Your task to perform on an android device: uninstall "Fetch Rewards" Image 0: 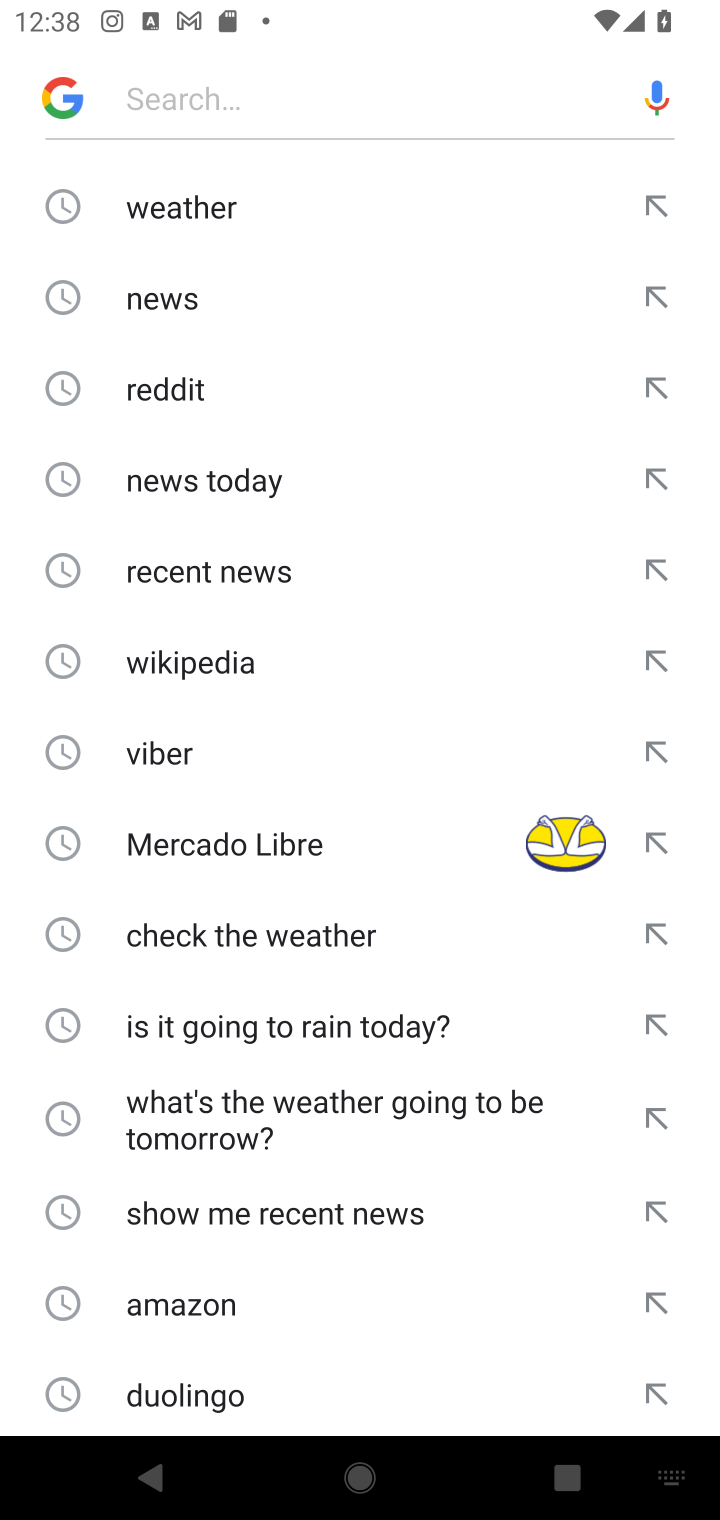
Step 0: type "Fetch Rewards"
Your task to perform on an android device: uninstall "Fetch Rewards" Image 1: 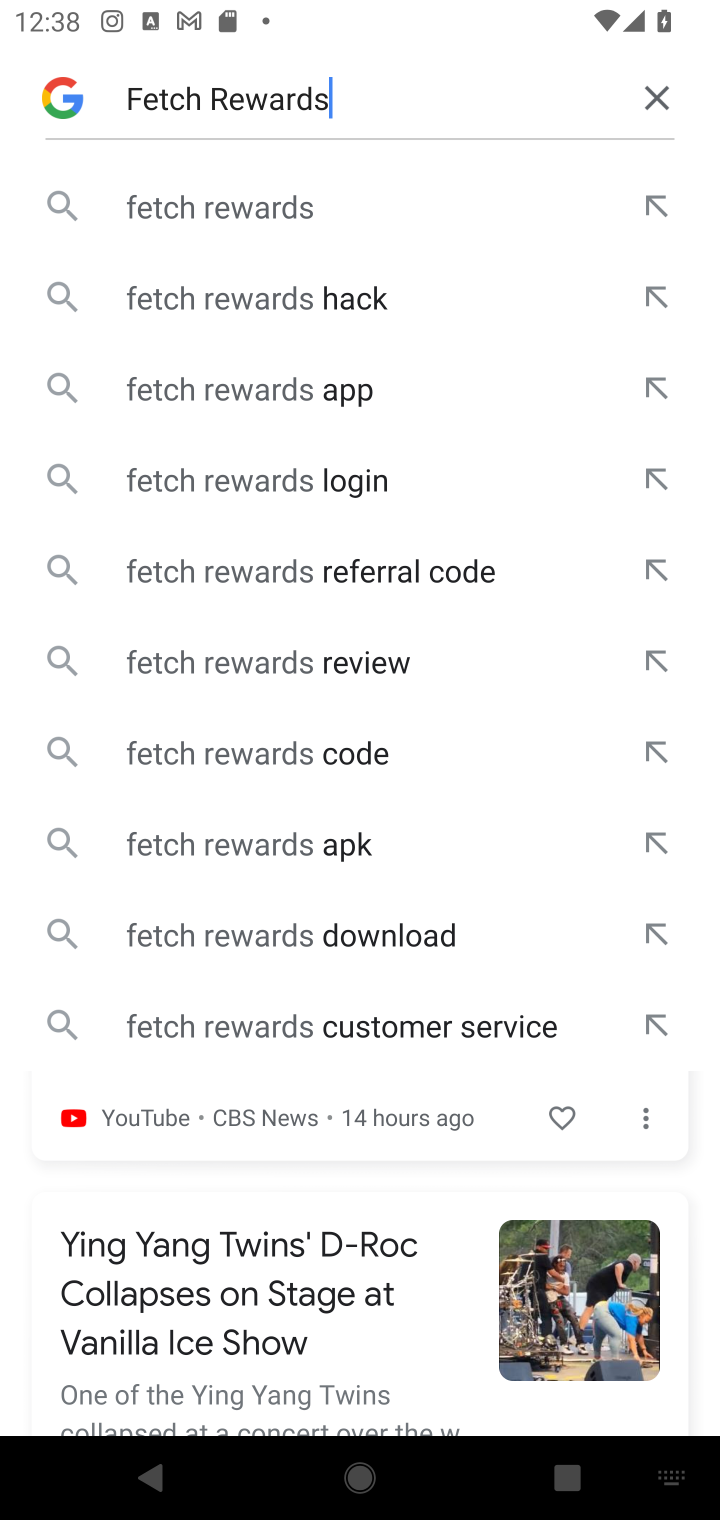
Step 1: click (236, 208)
Your task to perform on an android device: uninstall "Fetch Rewards" Image 2: 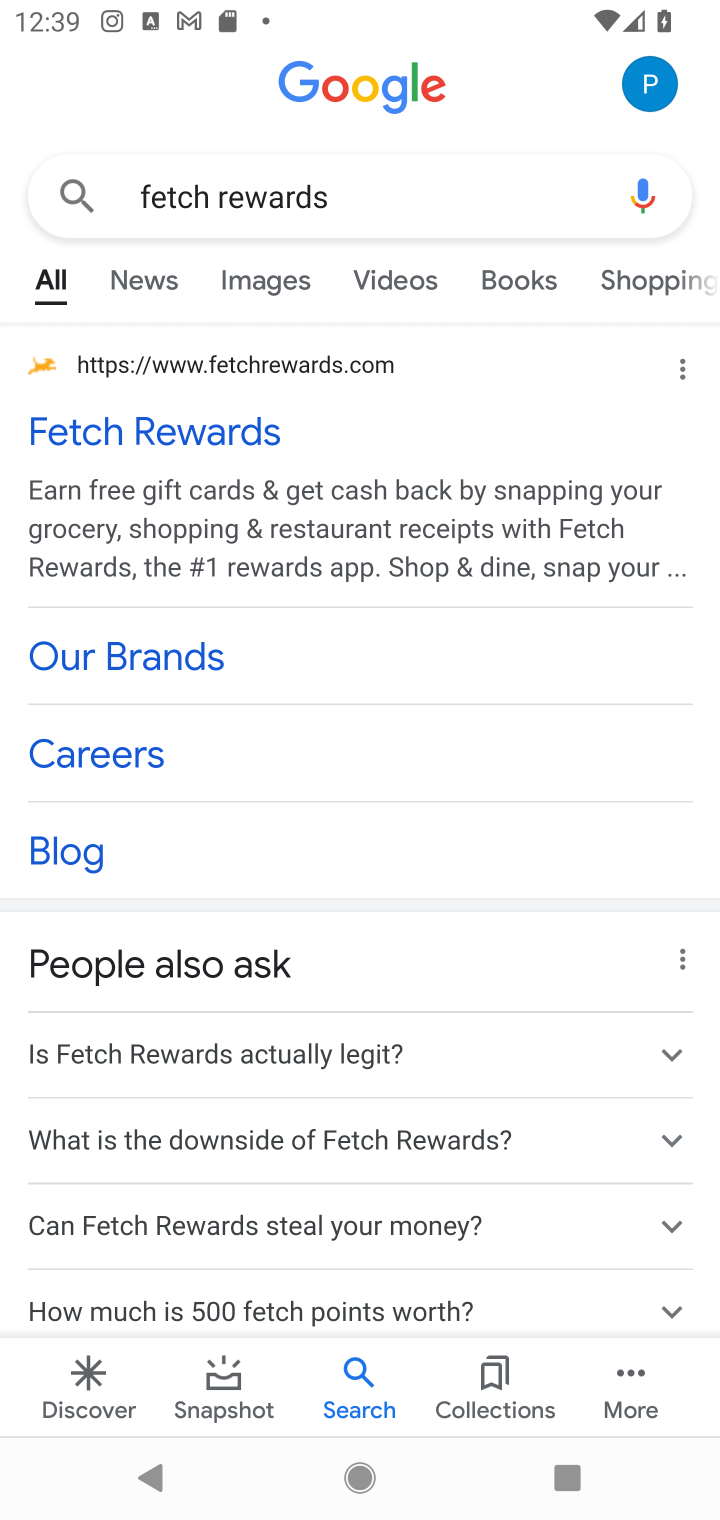
Step 2: press home button
Your task to perform on an android device: uninstall "Fetch Rewards" Image 3: 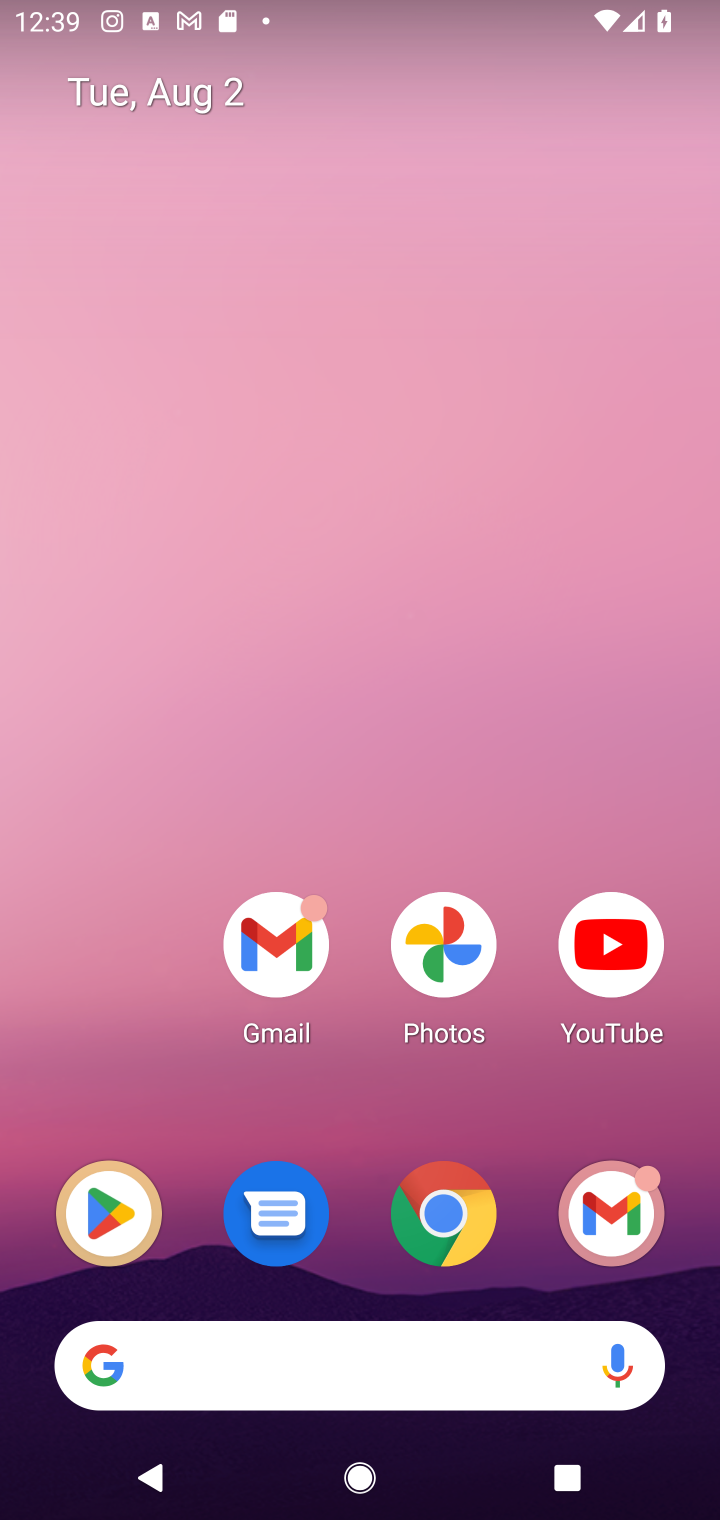
Step 3: click (128, 1223)
Your task to perform on an android device: uninstall "Fetch Rewards" Image 4: 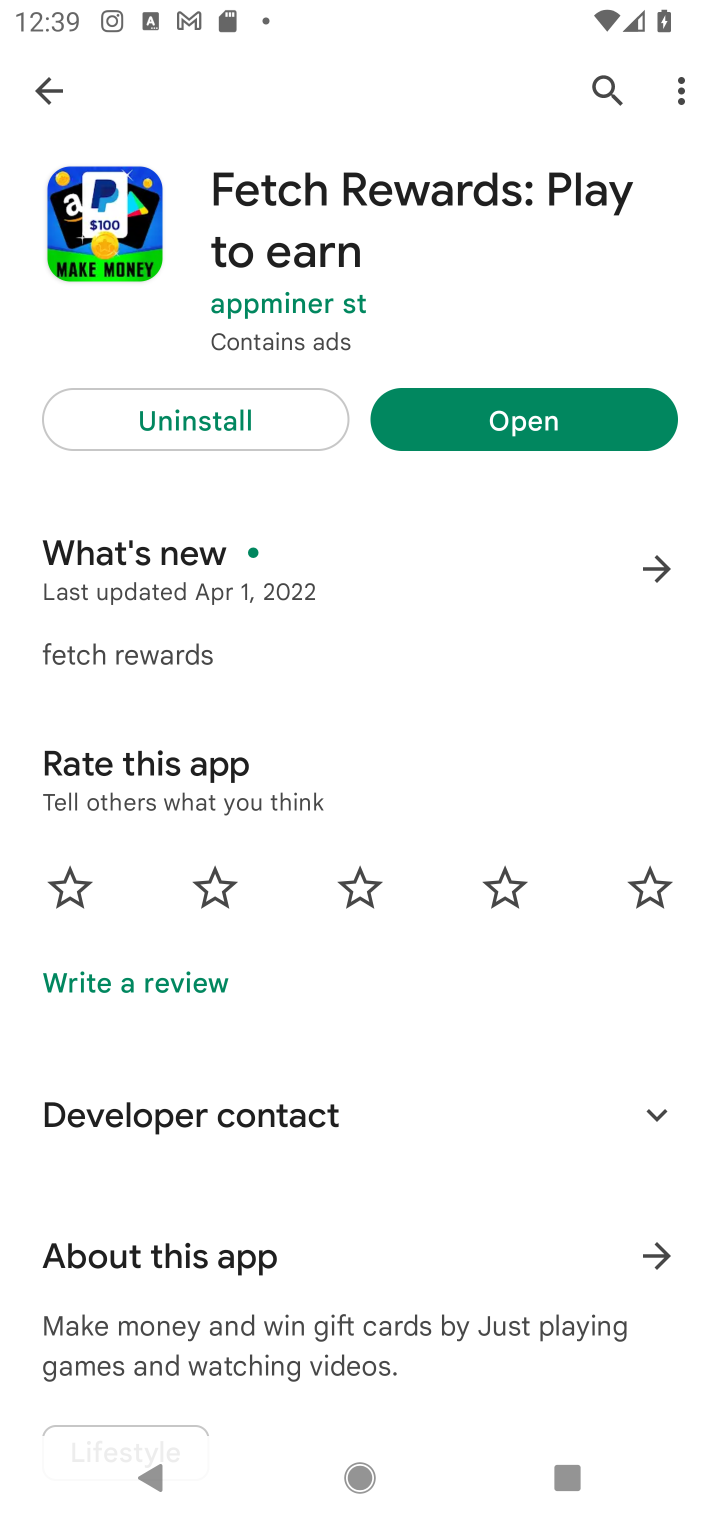
Step 4: click (49, 104)
Your task to perform on an android device: uninstall "Fetch Rewards" Image 5: 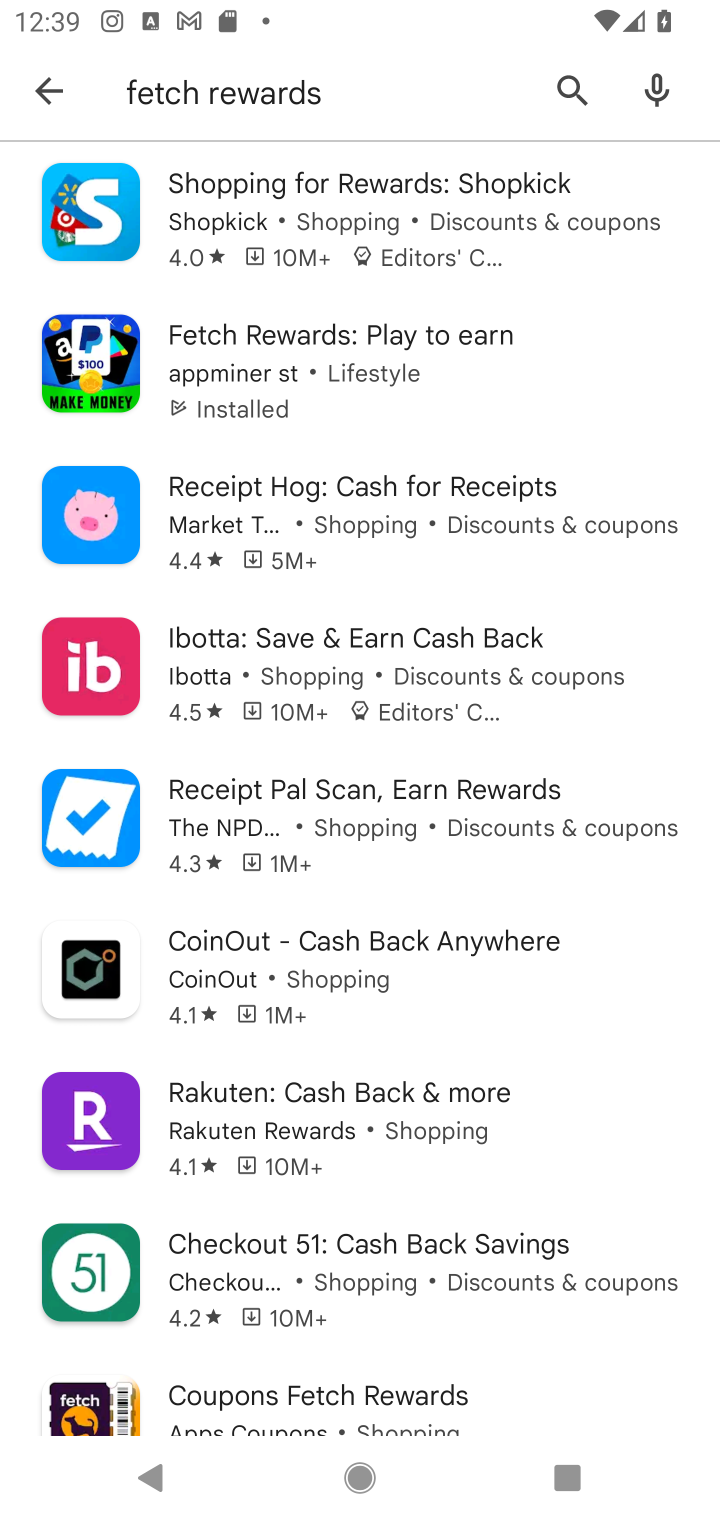
Step 5: click (61, 88)
Your task to perform on an android device: uninstall "Fetch Rewards" Image 6: 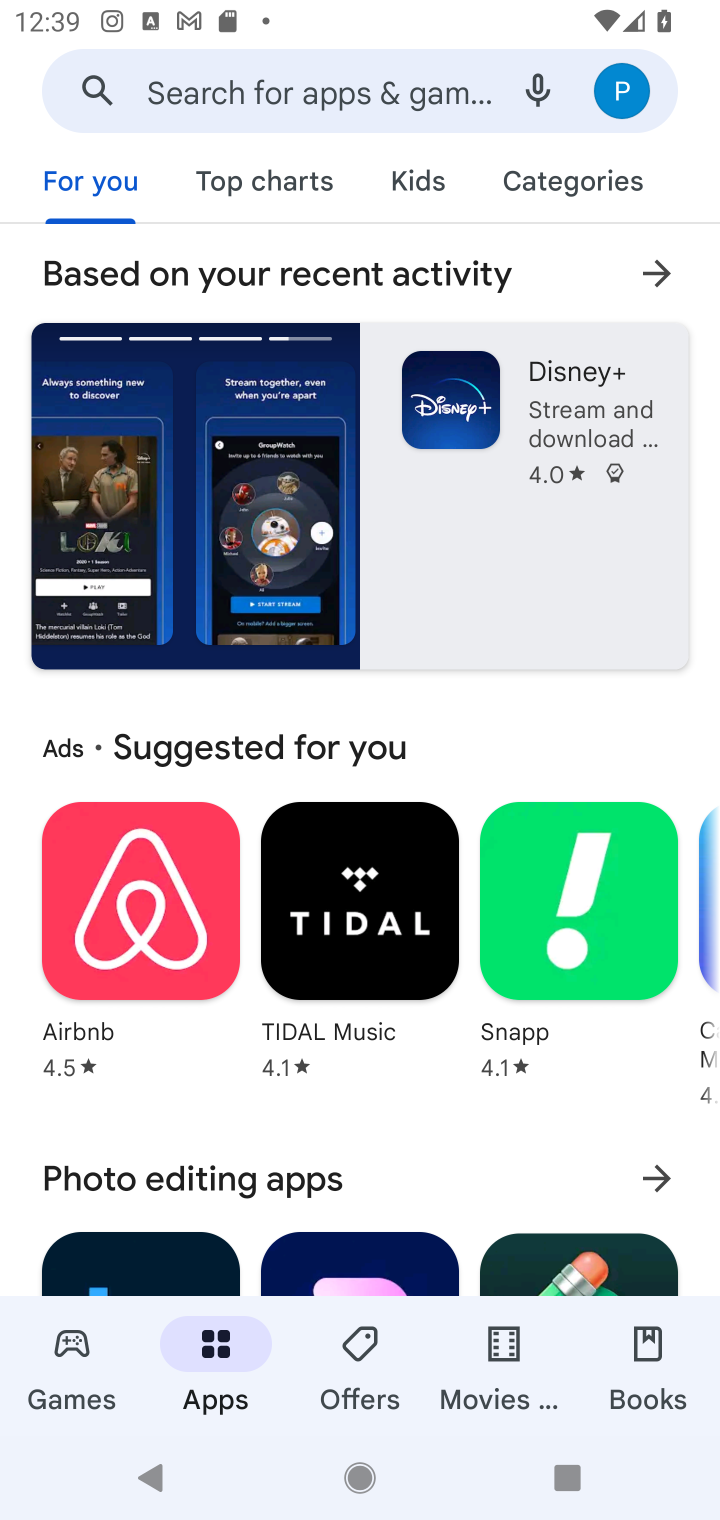
Step 6: click (288, 77)
Your task to perform on an android device: uninstall "Fetch Rewards" Image 7: 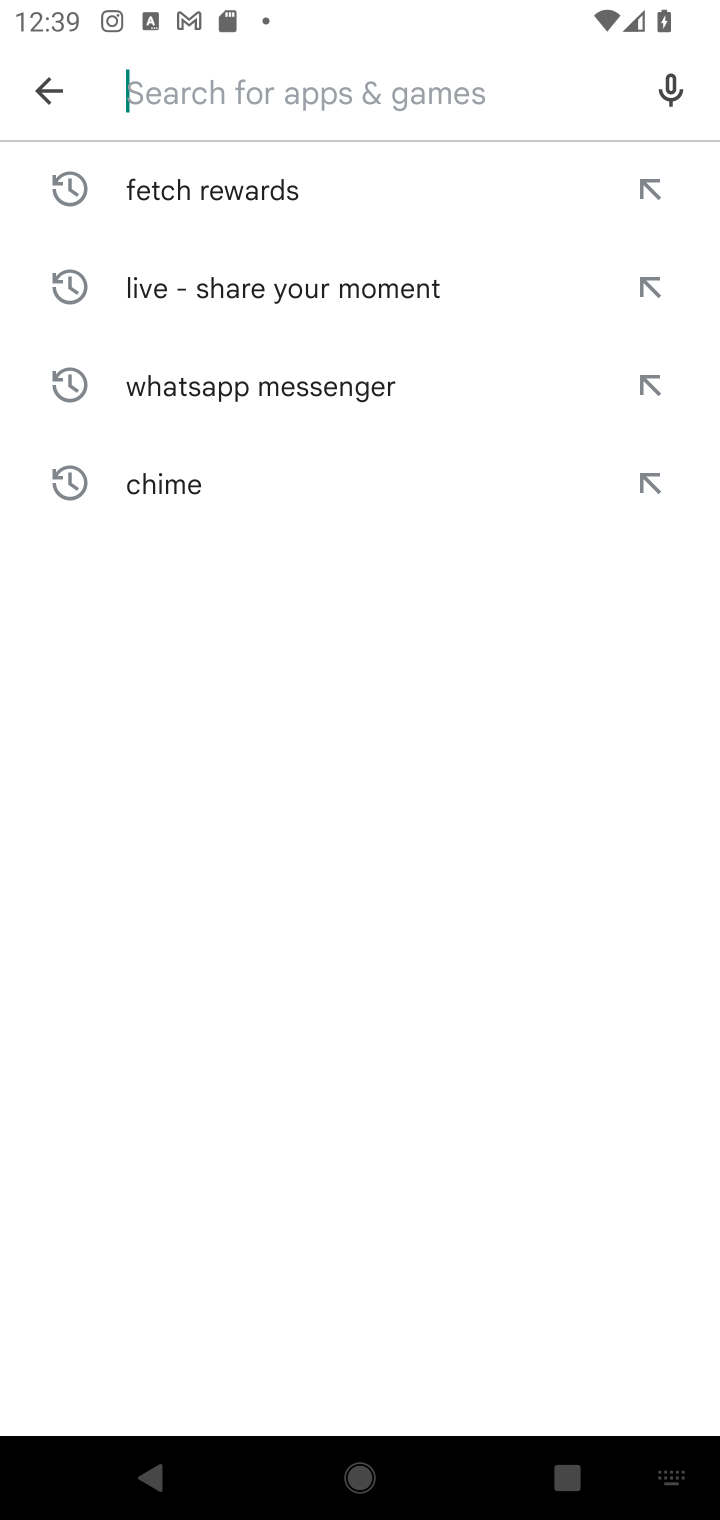
Step 7: click (286, 183)
Your task to perform on an android device: uninstall "Fetch Rewards" Image 8: 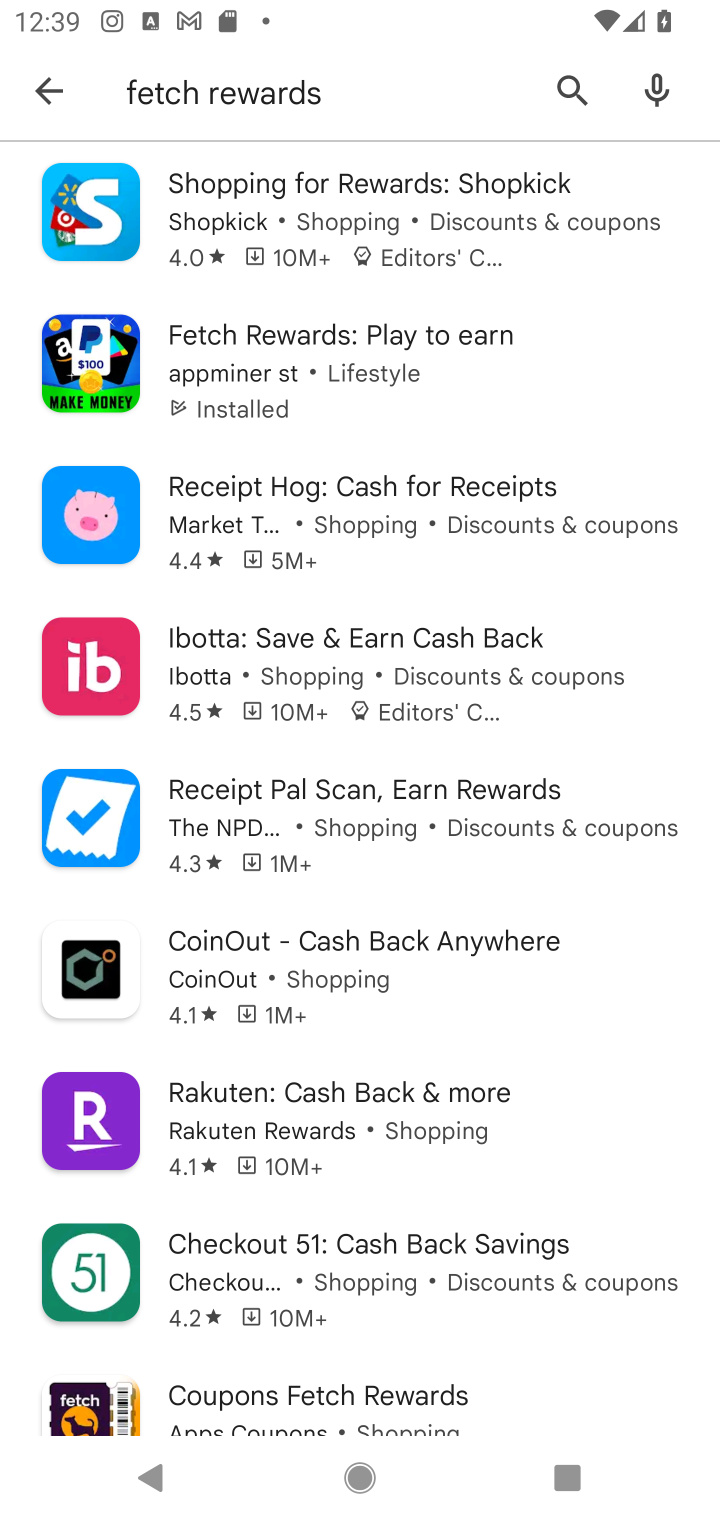
Step 8: click (272, 400)
Your task to perform on an android device: uninstall "Fetch Rewards" Image 9: 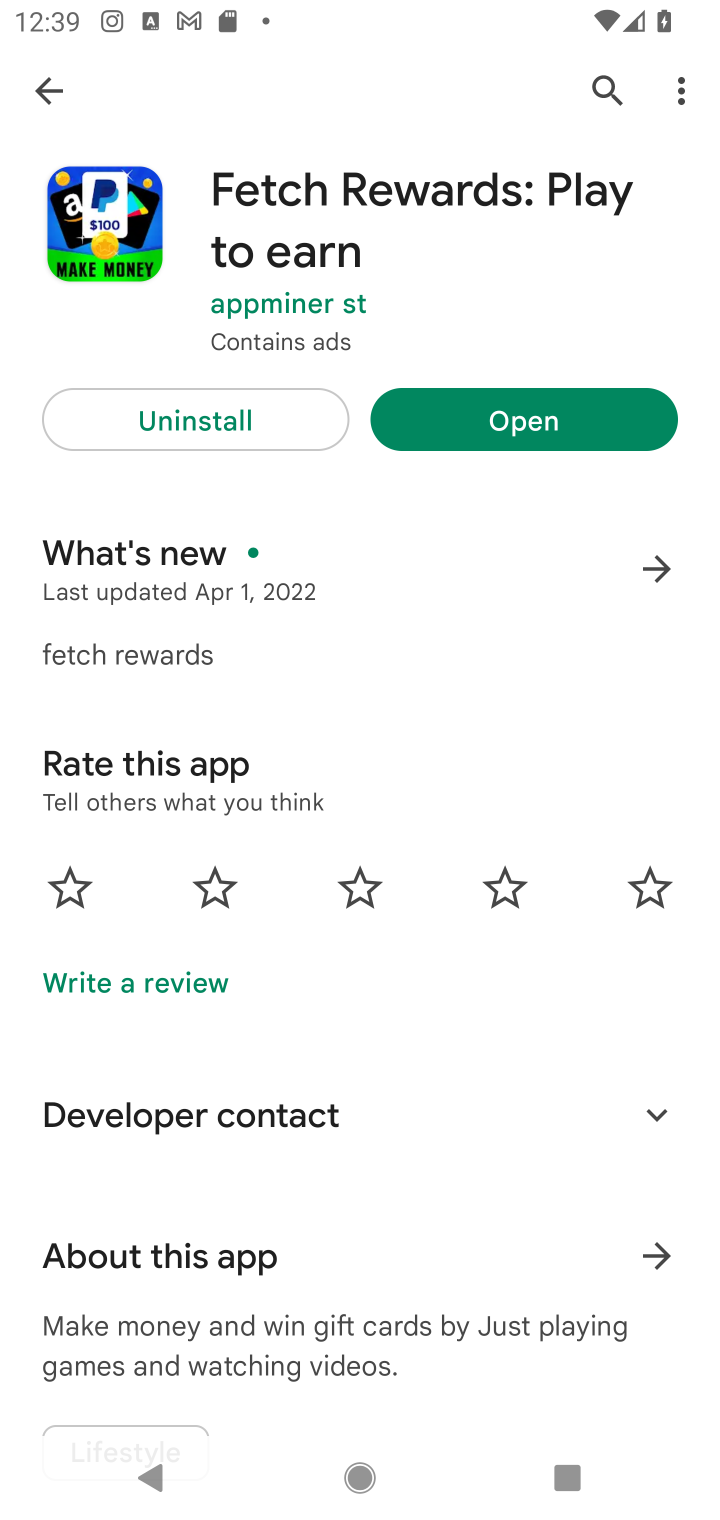
Step 9: click (168, 406)
Your task to perform on an android device: uninstall "Fetch Rewards" Image 10: 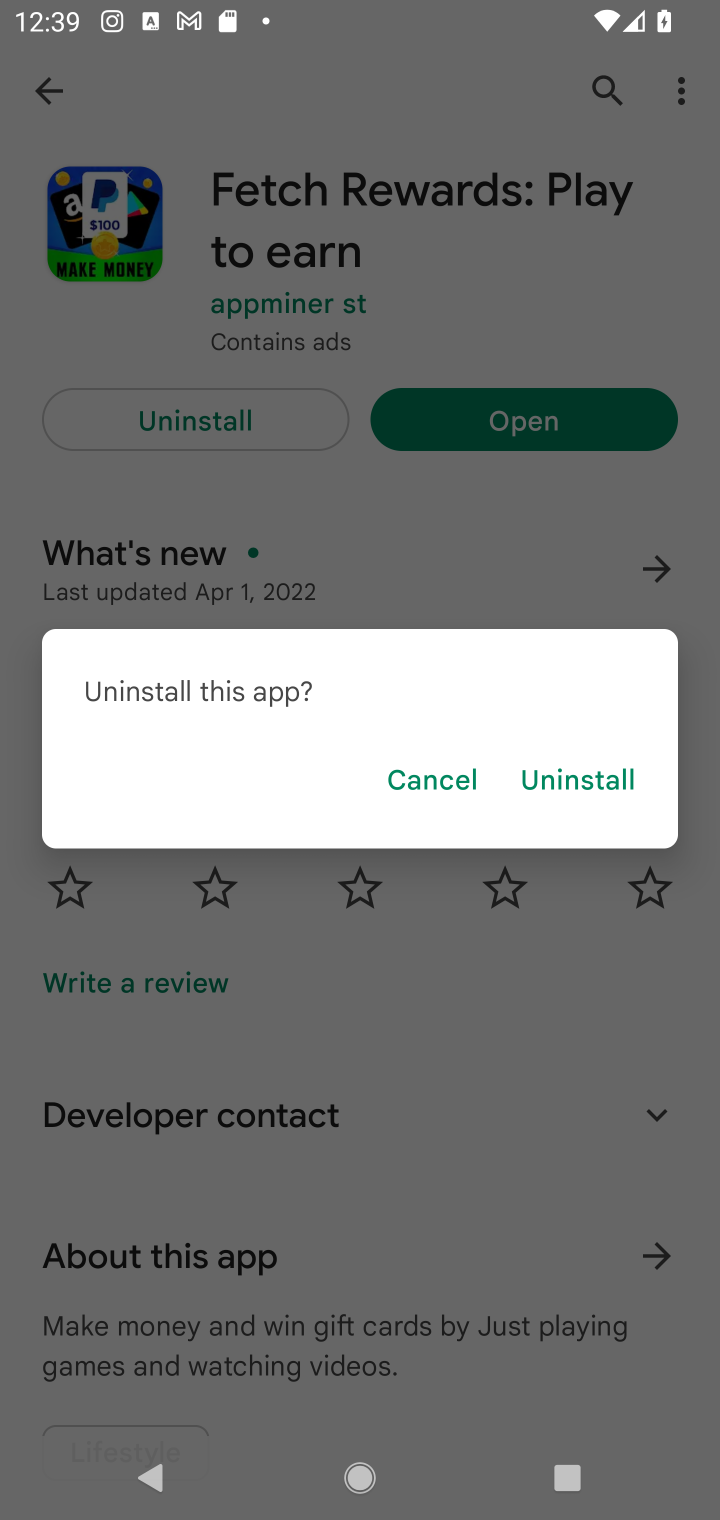
Step 10: click (597, 781)
Your task to perform on an android device: uninstall "Fetch Rewards" Image 11: 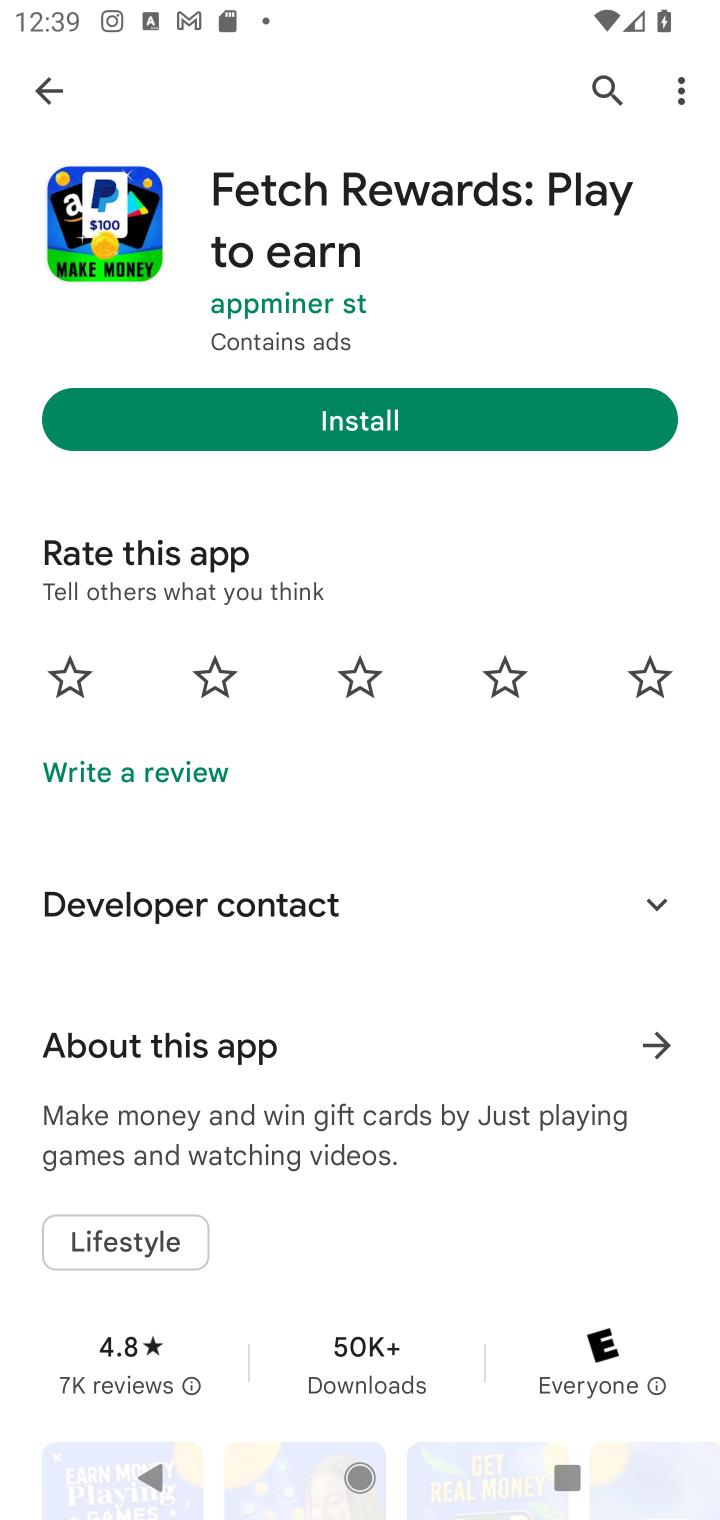
Step 11: task complete